Your task to perform on an android device: Show me the alarms in the clock app Image 0: 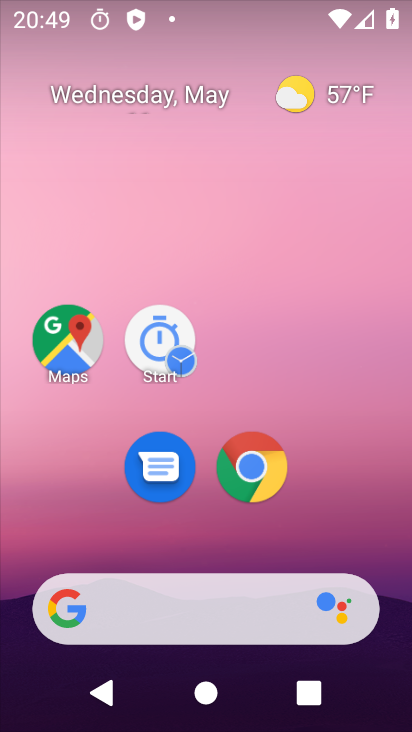
Step 0: drag from (406, 579) to (238, 93)
Your task to perform on an android device: Show me the alarms in the clock app Image 1: 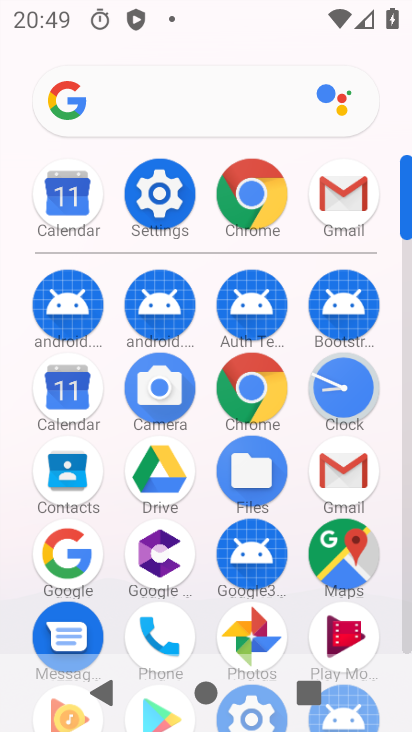
Step 1: click (349, 374)
Your task to perform on an android device: Show me the alarms in the clock app Image 2: 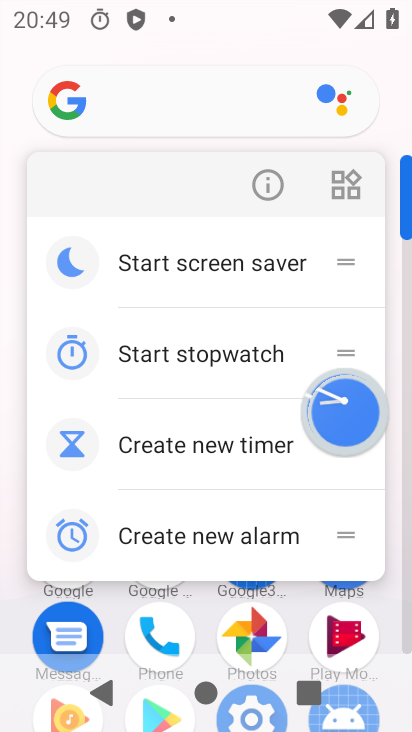
Step 2: click (335, 384)
Your task to perform on an android device: Show me the alarms in the clock app Image 3: 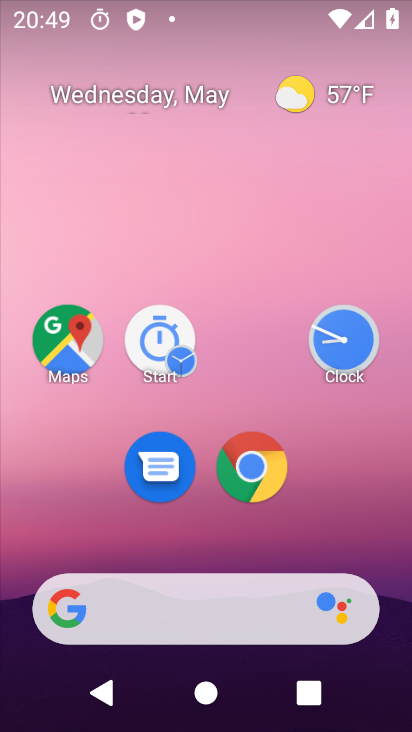
Step 3: drag from (366, 523) to (146, 0)
Your task to perform on an android device: Show me the alarms in the clock app Image 4: 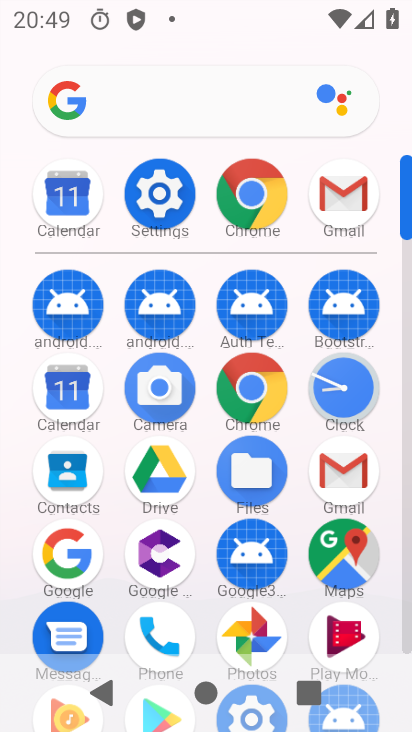
Step 4: click (359, 386)
Your task to perform on an android device: Show me the alarms in the clock app Image 5: 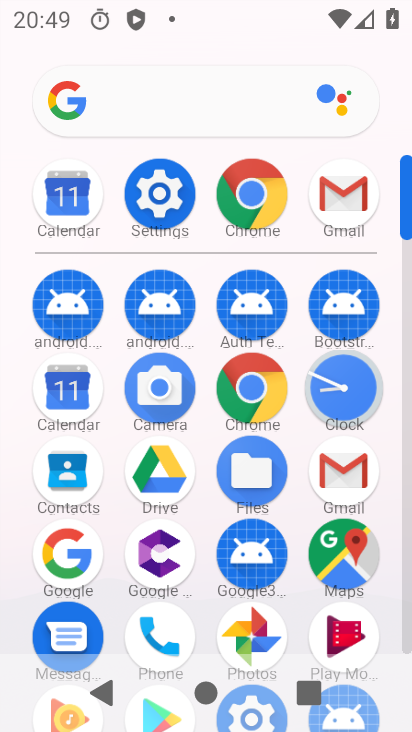
Step 5: click (359, 387)
Your task to perform on an android device: Show me the alarms in the clock app Image 6: 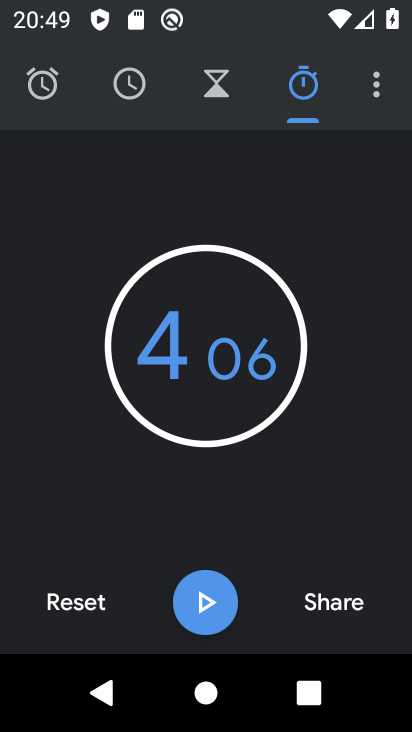
Step 6: click (358, 388)
Your task to perform on an android device: Show me the alarms in the clock app Image 7: 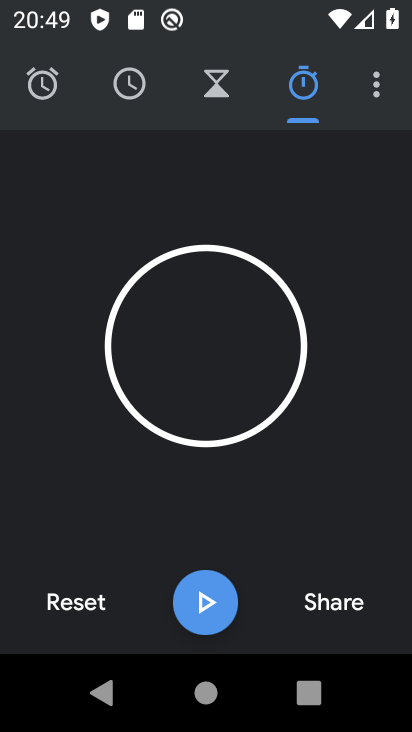
Step 7: click (34, 89)
Your task to perform on an android device: Show me the alarms in the clock app Image 8: 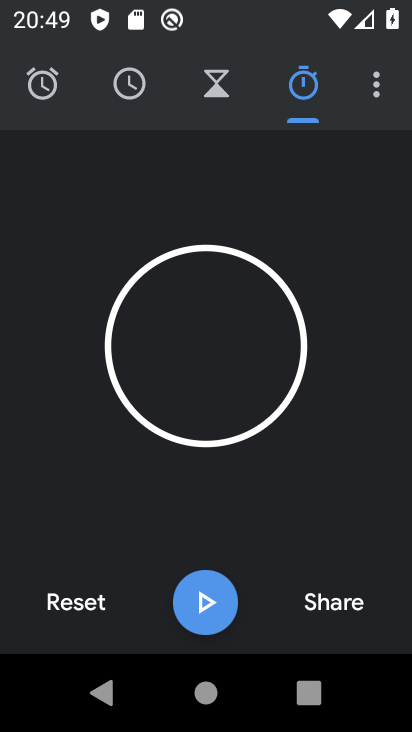
Step 8: click (39, 84)
Your task to perform on an android device: Show me the alarms in the clock app Image 9: 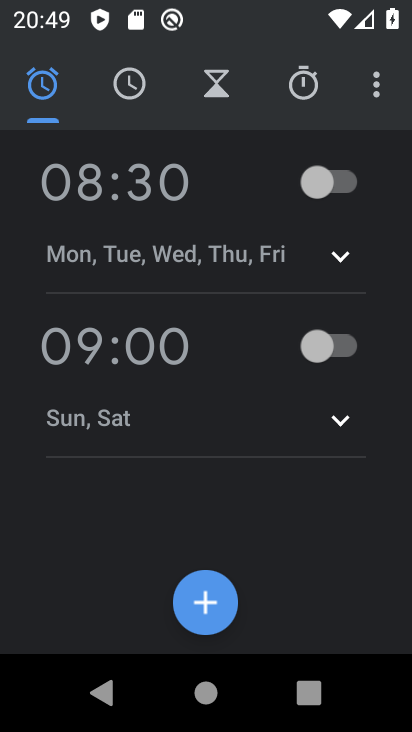
Step 9: task complete